Your task to perform on an android device: install app "Calculator" Image 0: 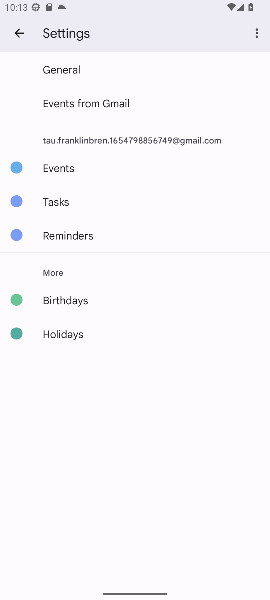
Step 0: press home button
Your task to perform on an android device: install app "Calculator" Image 1: 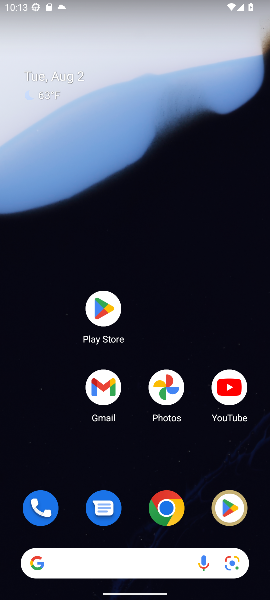
Step 1: click (110, 313)
Your task to perform on an android device: install app "Calculator" Image 2: 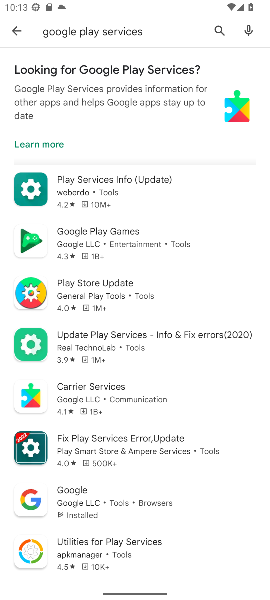
Step 2: type "Calculator"
Your task to perform on an android device: install app "Calculator" Image 3: 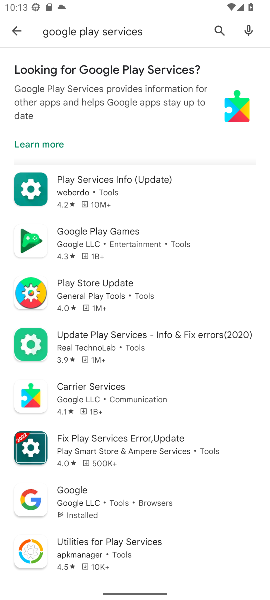
Step 3: click (222, 26)
Your task to perform on an android device: install app "Calculator" Image 4: 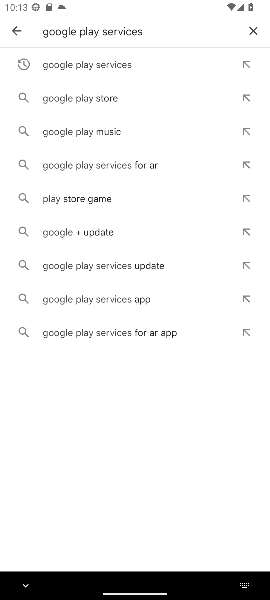
Step 4: click (253, 25)
Your task to perform on an android device: install app "Calculator" Image 5: 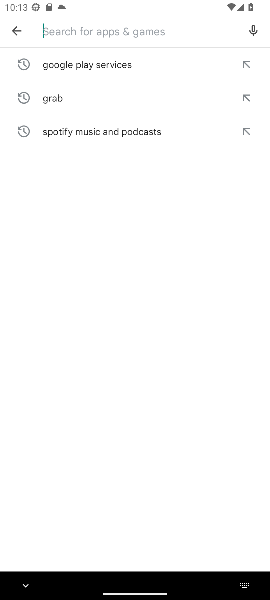
Step 5: type "Calculator"
Your task to perform on an android device: install app "Calculator" Image 6: 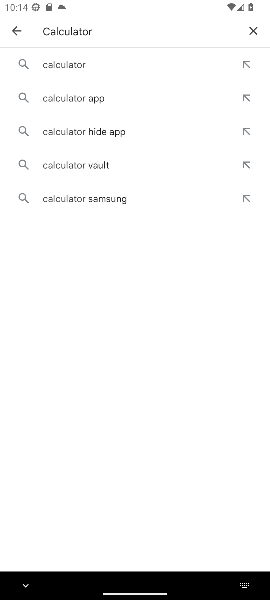
Step 6: click (67, 63)
Your task to perform on an android device: install app "Calculator" Image 7: 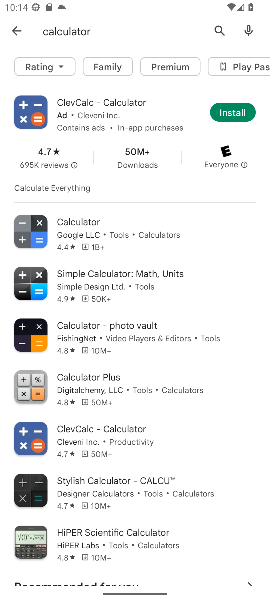
Step 7: click (223, 107)
Your task to perform on an android device: install app "Calculator" Image 8: 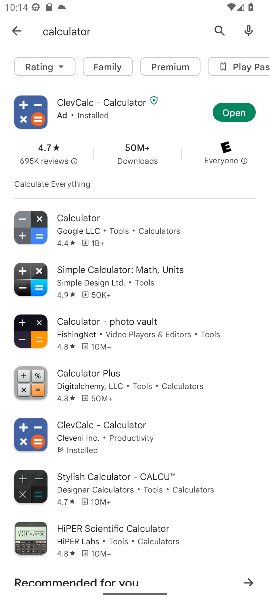
Step 8: task complete